Your task to perform on an android device: Open the stopwatch Image 0: 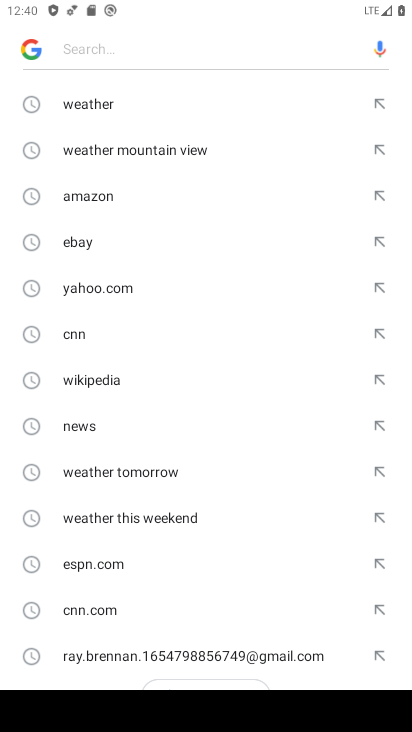
Step 0: press home button
Your task to perform on an android device: Open the stopwatch Image 1: 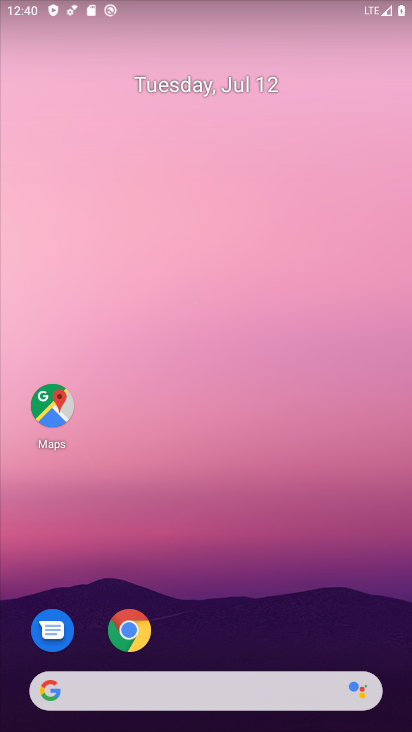
Step 1: drag from (274, 583) to (240, 52)
Your task to perform on an android device: Open the stopwatch Image 2: 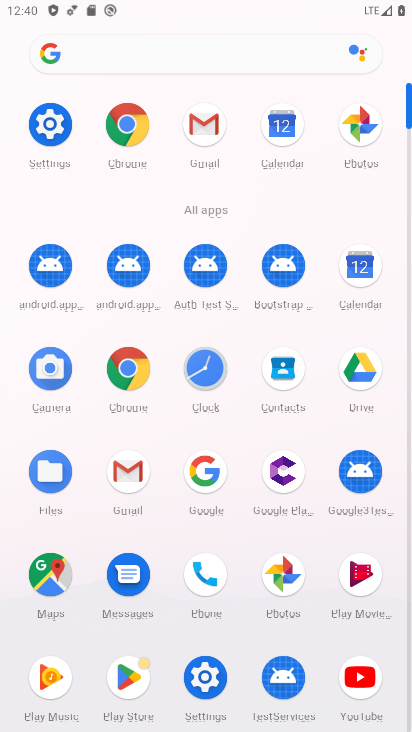
Step 2: click (206, 365)
Your task to perform on an android device: Open the stopwatch Image 3: 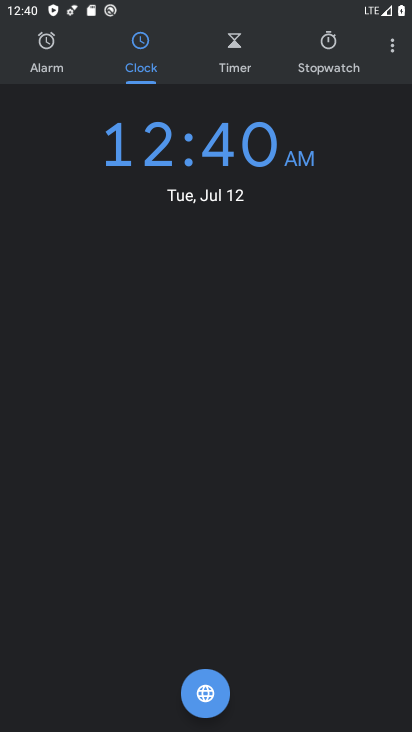
Step 3: click (330, 61)
Your task to perform on an android device: Open the stopwatch Image 4: 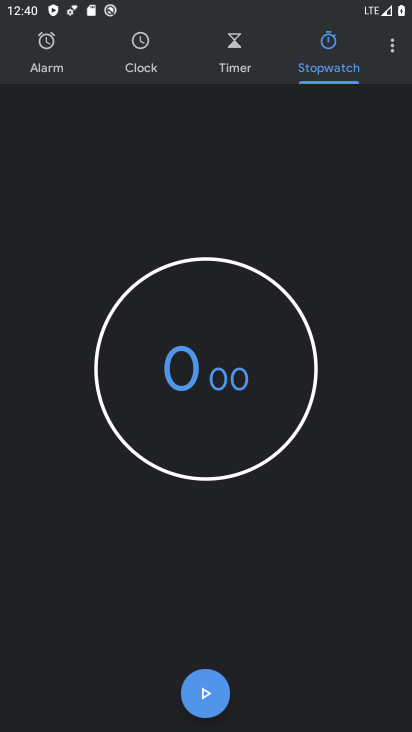
Step 4: click (216, 700)
Your task to perform on an android device: Open the stopwatch Image 5: 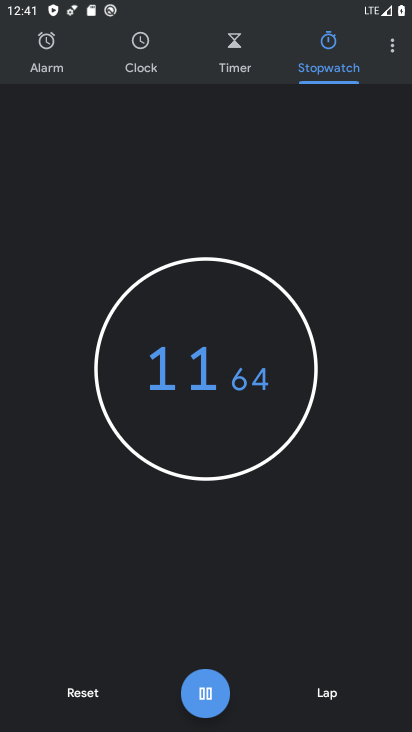
Step 5: task complete